Your task to perform on an android device: Open Chrome and go to settings Image 0: 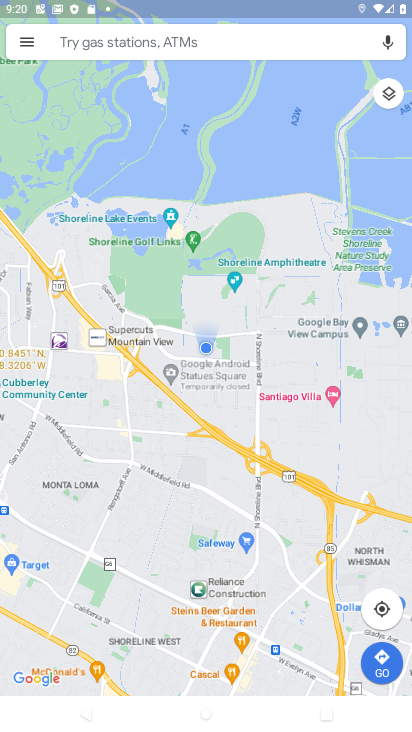
Step 0: press back button
Your task to perform on an android device: Open Chrome and go to settings Image 1: 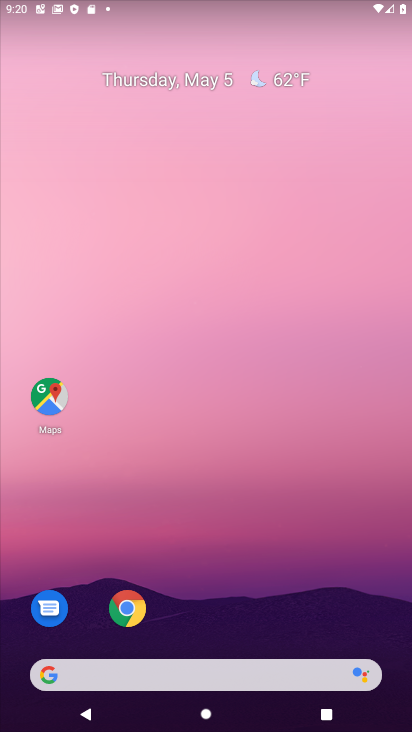
Step 1: drag from (247, 562) to (179, 1)
Your task to perform on an android device: Open Chrome and go to settings Image 2: 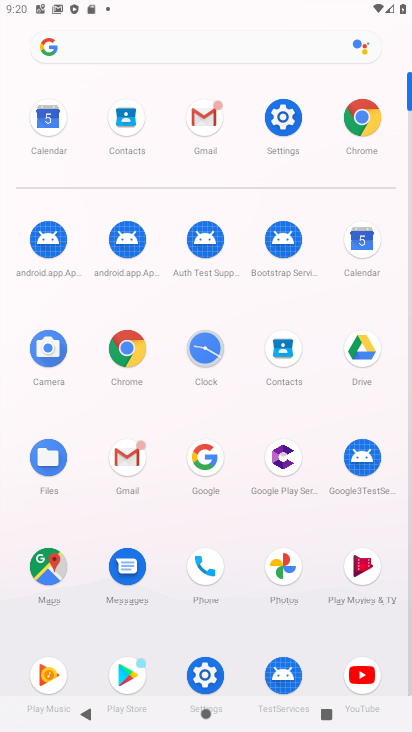
Step 2: click (127, 343)
Your task to perform on an android device: Open Chrome and go to settings Image 3: 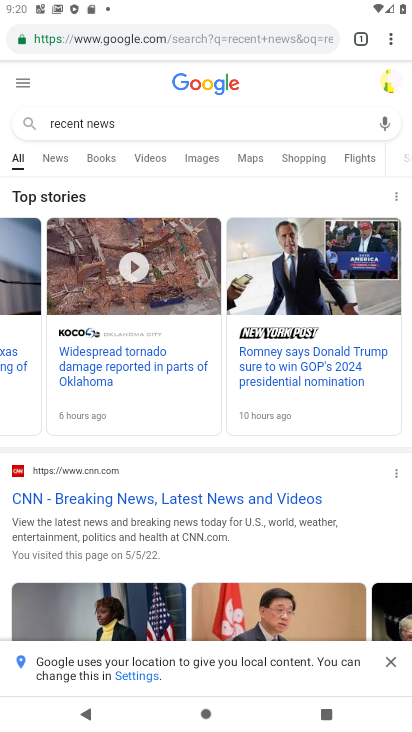
Step 3: task complete